Your task to perform on an android device: Search for Italian restaurants on Maps Image 0: 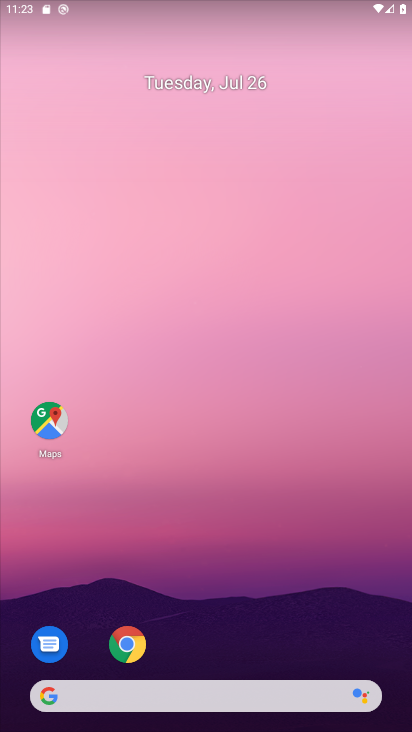
Step 0: click (42, 407)
Your task to perform on an android device: Search for Italian restaurants on Maps Image 1: 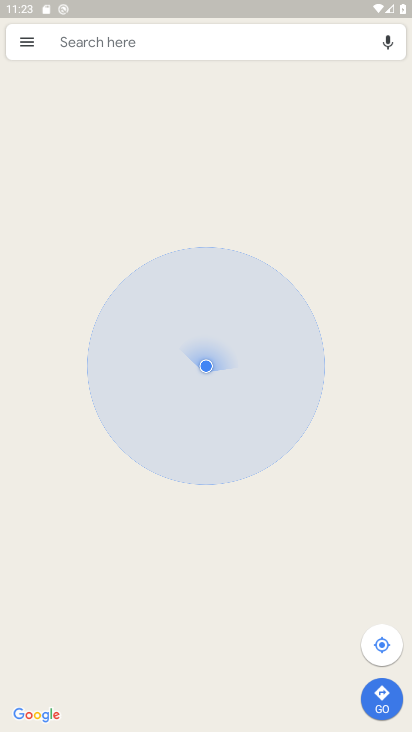
Step 1: click (136, 48)
Your task to perform on an android device: Search for Italian restaurants on Maps Image 2: 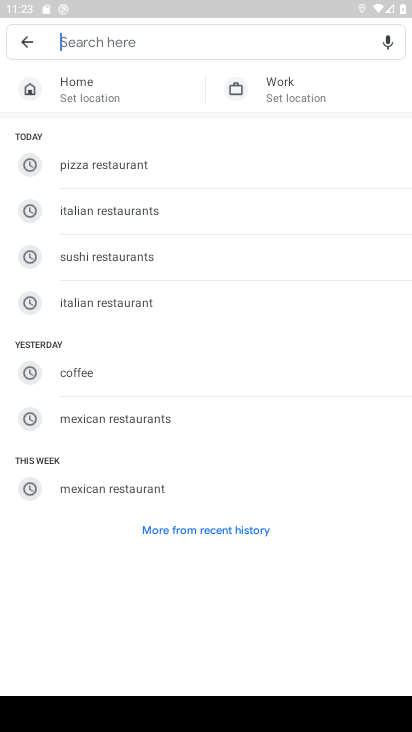
Step 2: type "Italian restaurants"
Your task to perform on an android device: Search for Italian restaurants on Maps Image 3: 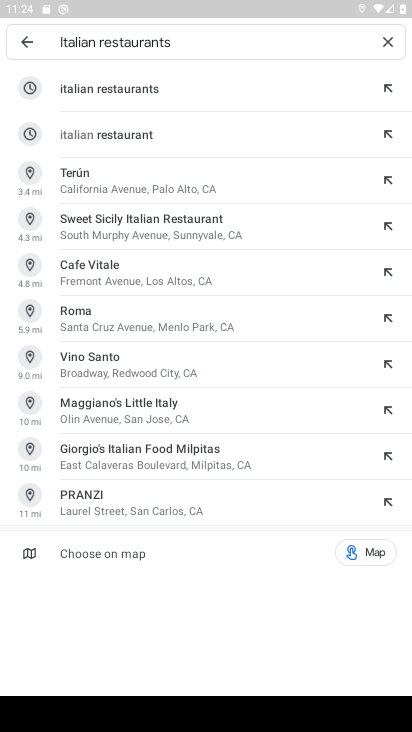
Step 3: click (116, 86)
Your task to perform on an android device: Search for Italian restaurants on Maps Image 4: 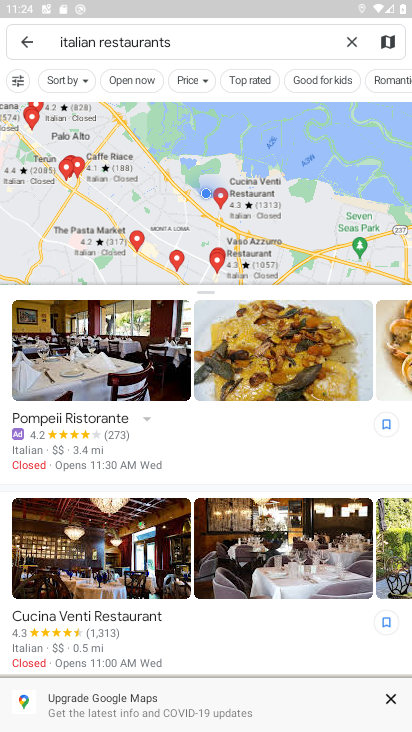
Step 4: task complete